Your task to perform on an android device: Open Google Maps Image 0: 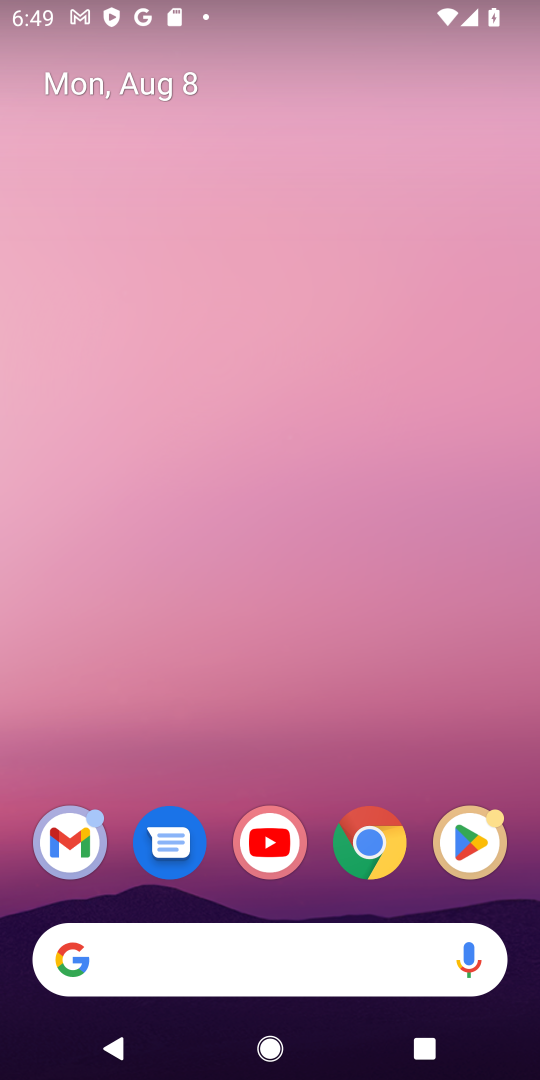
Step 0: drag from (322, 902) to (294, 108)
Your task to perform on an android device: Open Google Maps Image 1: 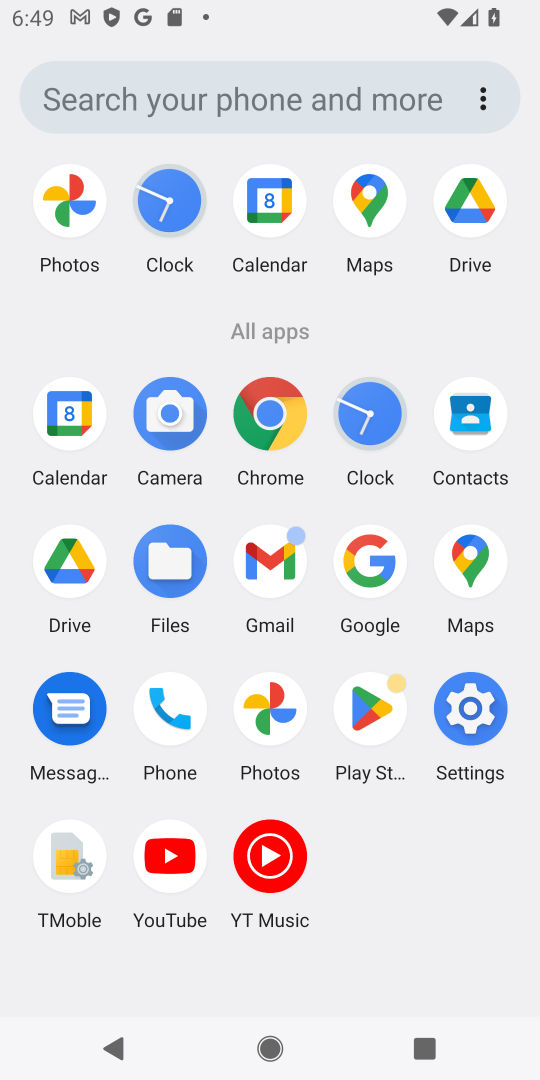
Step 1: click (371, 192)
Your task to perform on an android device: Open Google Maps Image 2: 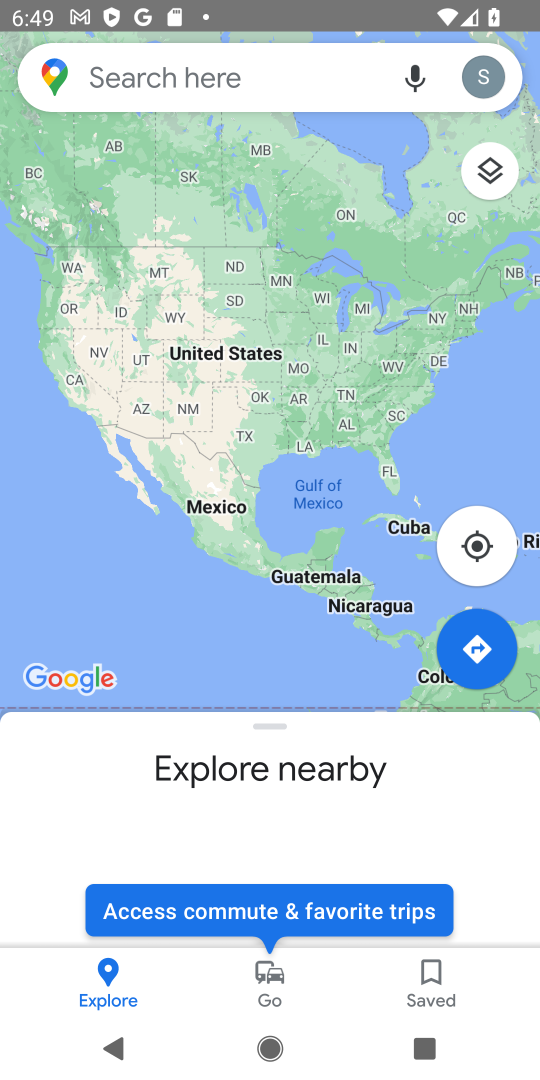
Step 2: task complete